Your task to perform on an android device: delete the emails in spam in the gmail app Image 0: 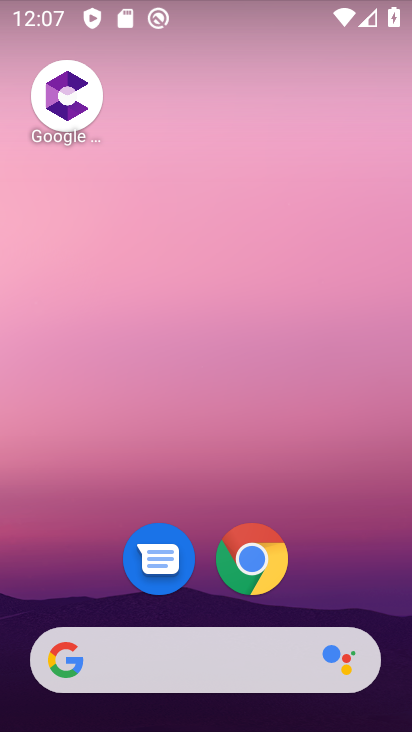
Step 0: drag from (371, 545) to (281, 38)
Your task to perform on an android device: delete the emails in spam in the gmail app Image 1: 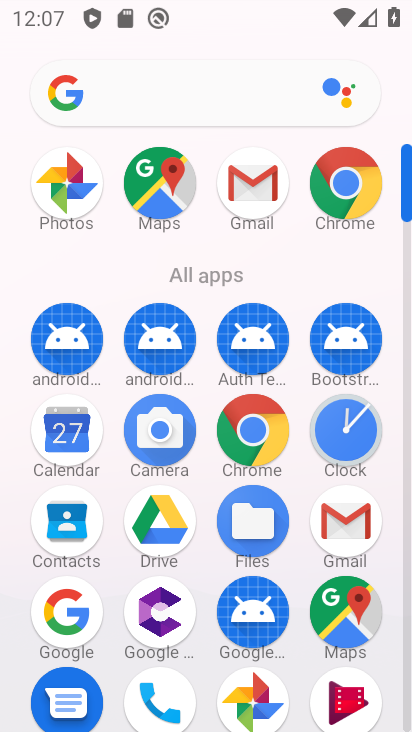
Step 1: click (329, 511)
Your task to perform on an android device: delete the emails in spam in the gmail app Image 2: 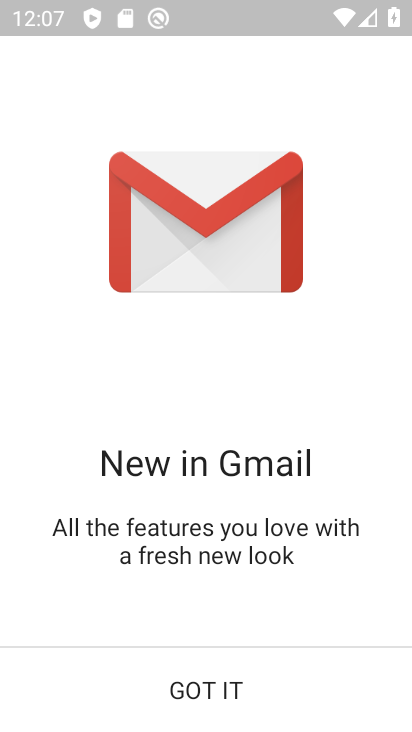
Step 2: click (220, 684)
Your task to perform on an android device: delete the emails in spam in the gmail app Image 3: 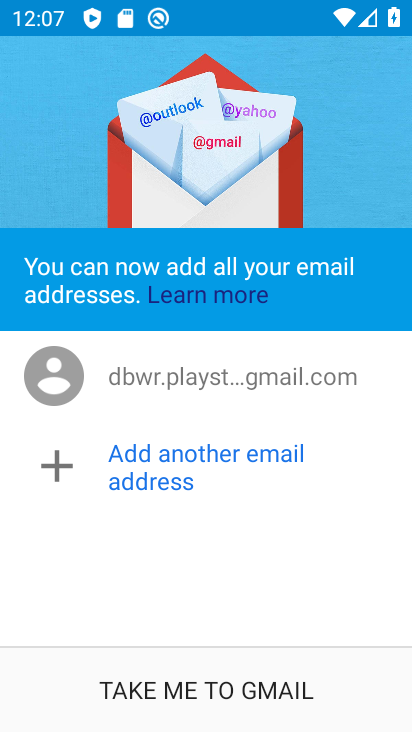
Step 3: click (310, 680)
Your task to perform on an android device: delete the emails in spam in the gmail app Image 4: 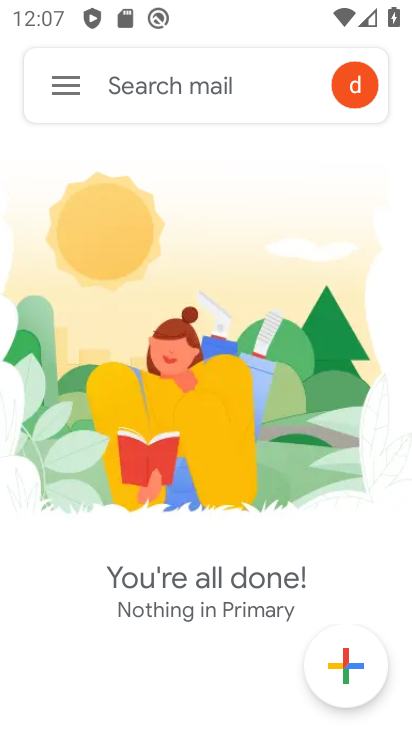
Step 4: click (64, 89)
Your task to perform on an android device: delete the emails in spam in the gmail app Image 5: 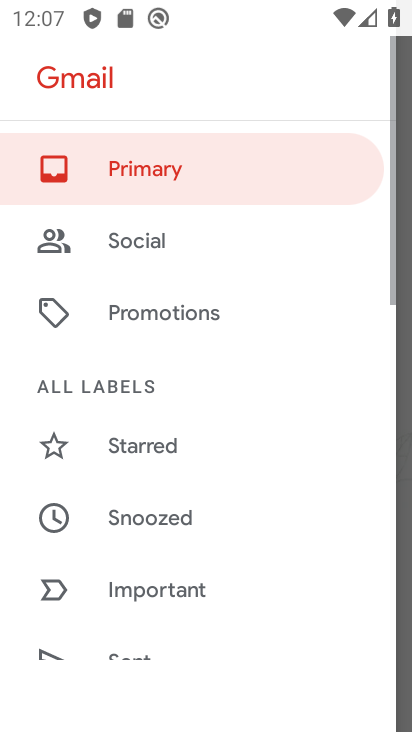
Step 5: drag from (208, 589) to (264, 195)
Your task to perform on an android device: delete the emails in spam in the gmail app Image 6: 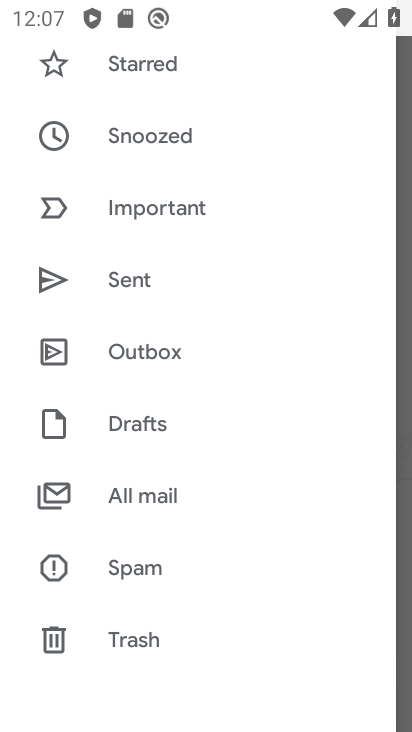
Step 6: click (174, 502)
Your task to perform on an android device: delete the emails in spam in the gmail app Image 7: 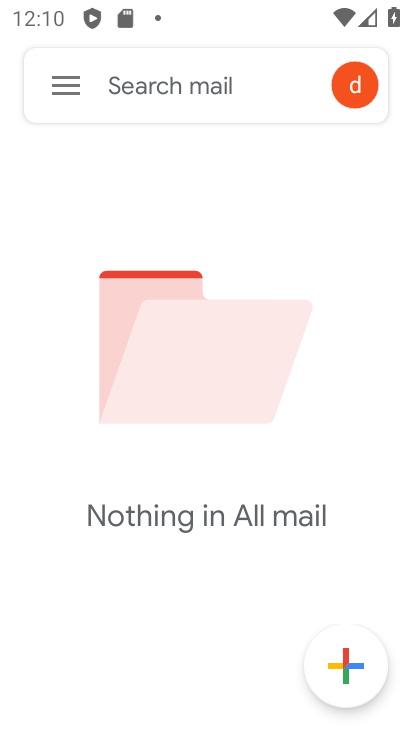
Step 7: task complete